Your task to perform on an android device: turn off translation in the chrome app Image 0: 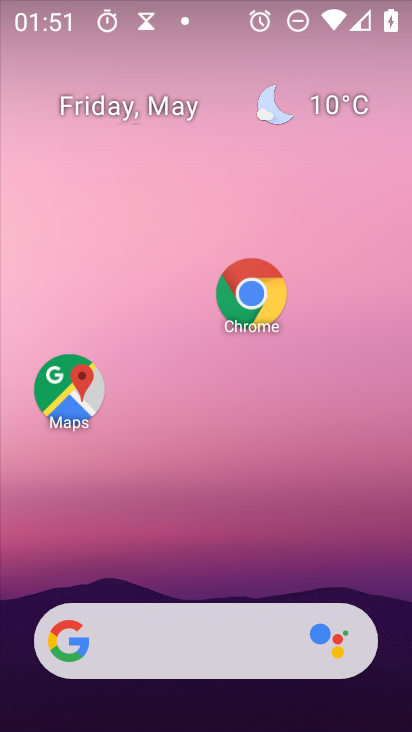
Step 0: press home button
Your task to perform on an android device: turn off translation in the chrome app Image 1: 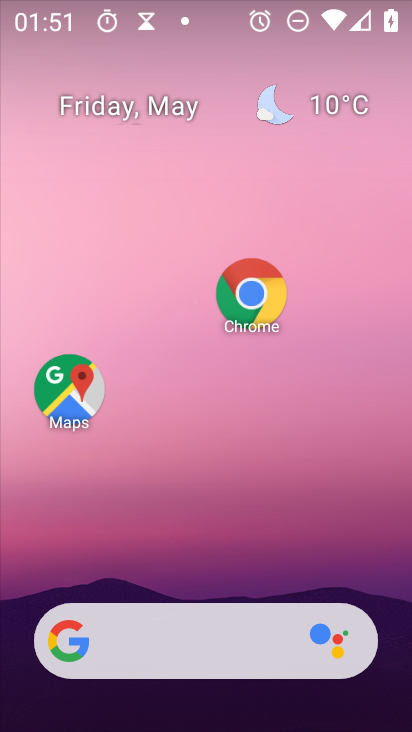
Step 1: click (242, 296)
Your task to perform on an android device: turn off translation in the chrome app Image 2: 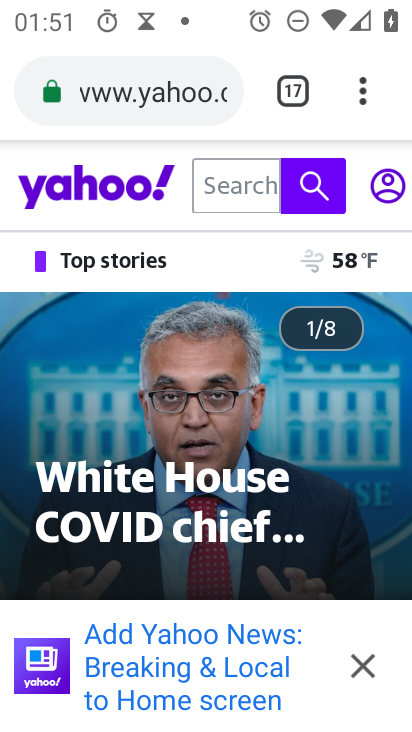
Step 2: drag from (359, 97) to (208, 563)
Your task to perform on an android device: turn off translation in the chrome app Image 3: 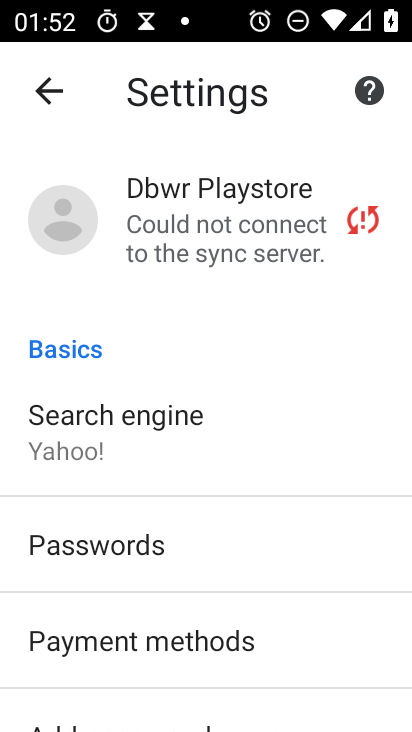
Step 3: drag from (199, 619) to (360, 210)
Your task to perform on an android device: turn off translation in the chrome app Image 4: 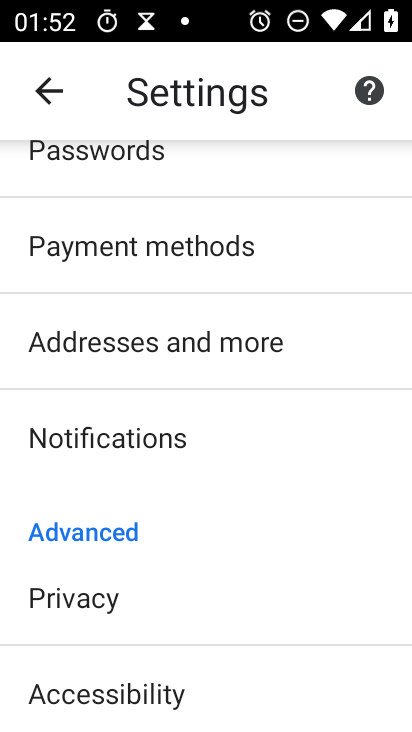
Step 4: drag from (167, 610) to (344, 208)
Your task to perform on an android device: turn off translation in the chrome app Image 5: 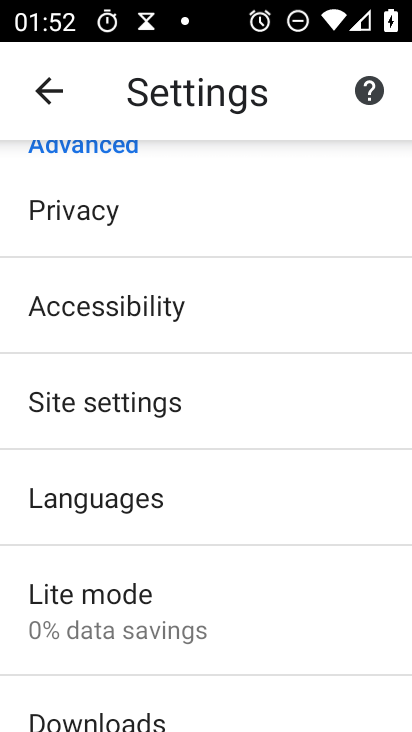
Step 5: click (133, 504)
Your task to perform on an android device: turn off translation in the chrome app Image 6: 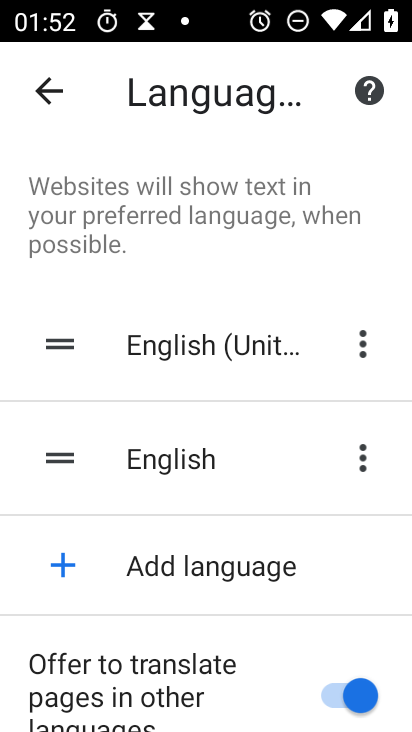
Step 6: click (334, 693)
Your task to perform on an android device: turn off translation in the chrome app Image 7: 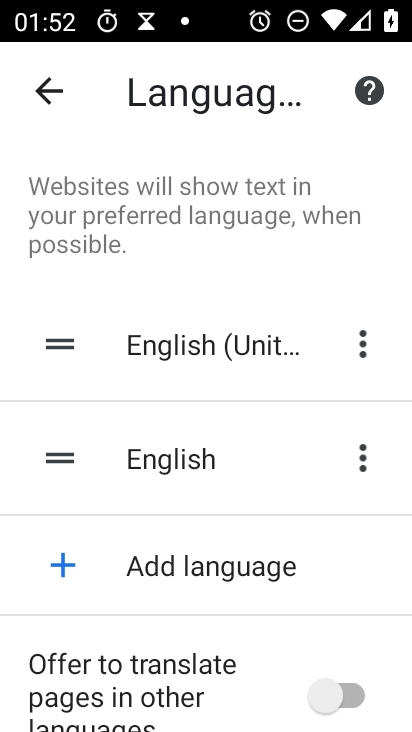
Step 7: task complete